Your task to perform on an android device: What's the weather today? Image 0: 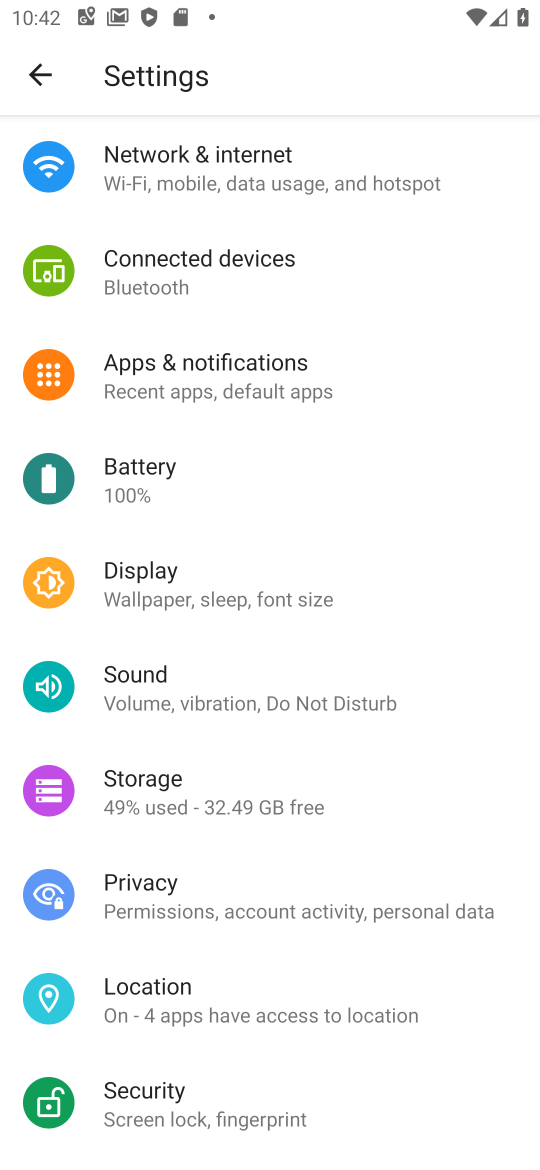
Step 0: press home button
Your task to perform on an android device: What's the weather today? Image 1: 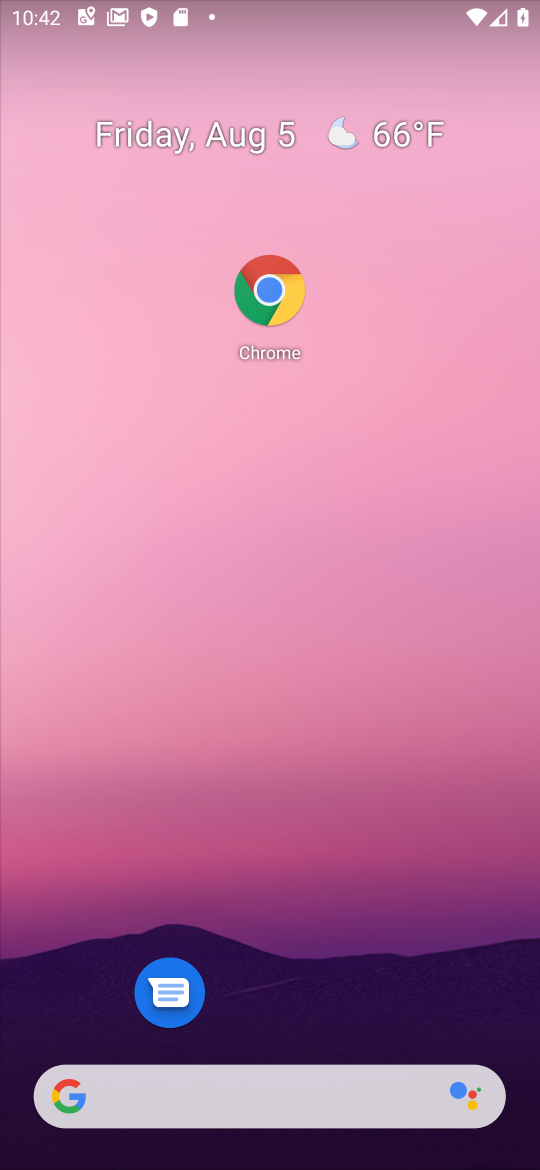
Step 1: drag from (351, 994) to (290, 3)
Your task to perform on an android device: What's the weather today? Image 2: 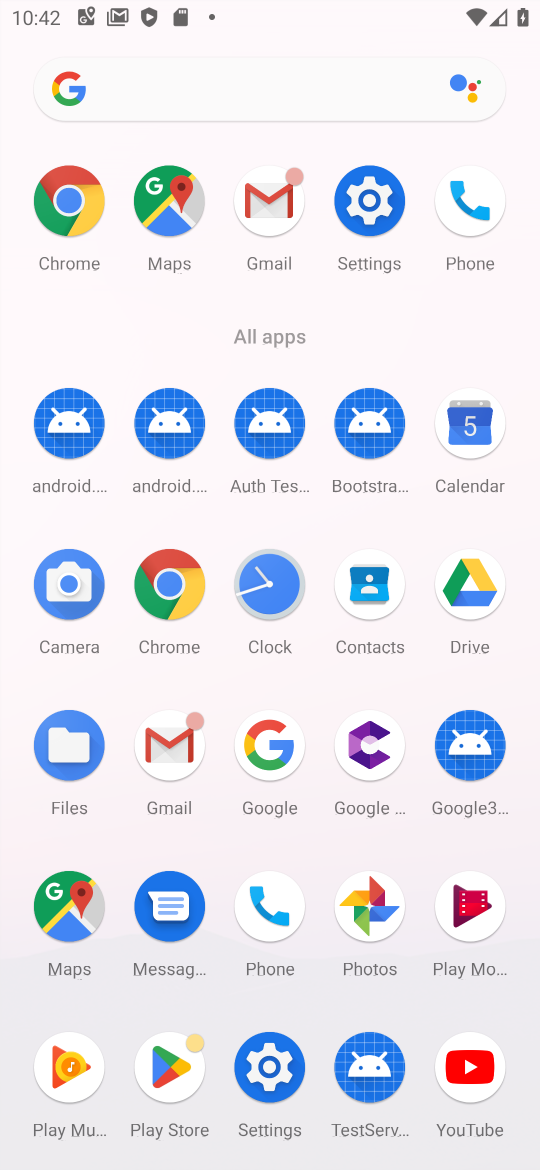
Step 2: click (265, 771)
Your task to perform on an android device: What's the weather today? Image 3: 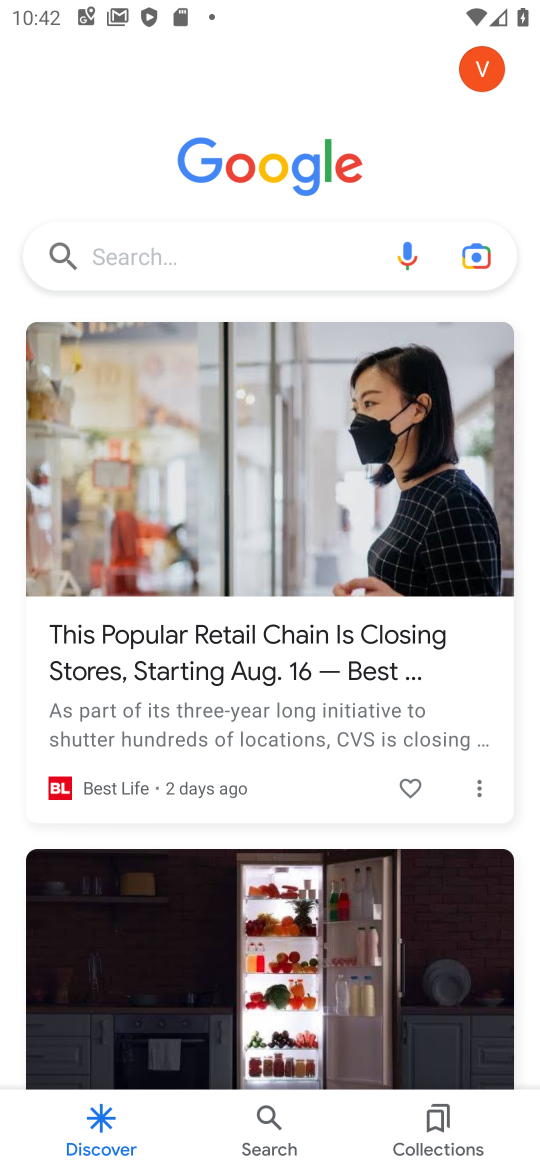
Step 3: click (219, 259)
Your task to perform on an android device: What's the weather today? Image 4: 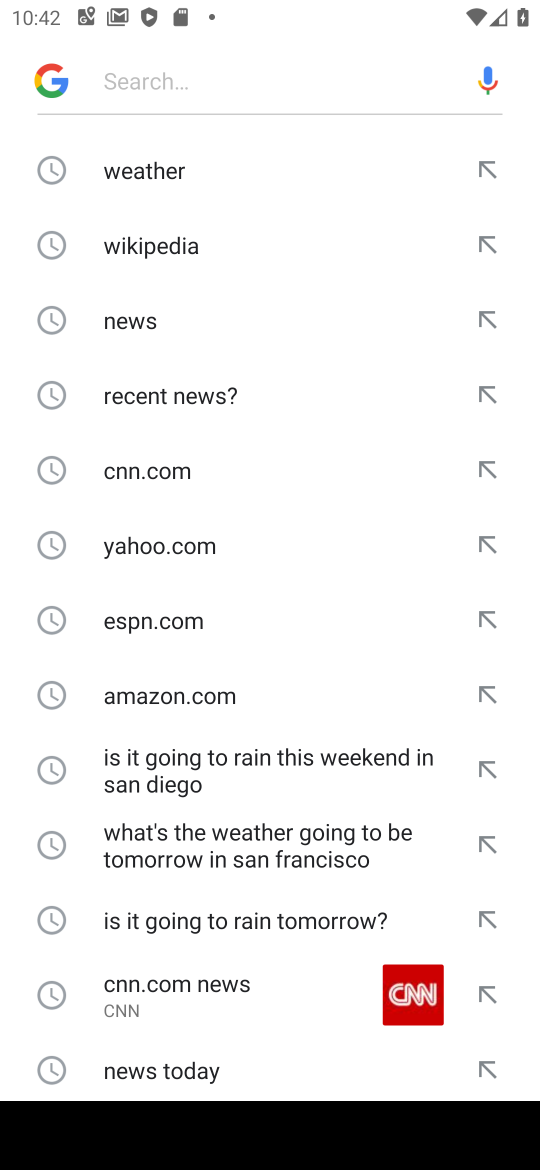
Step 4: click (129, 182)
Your task to perform on an android device: What's the weather today? Image 5: 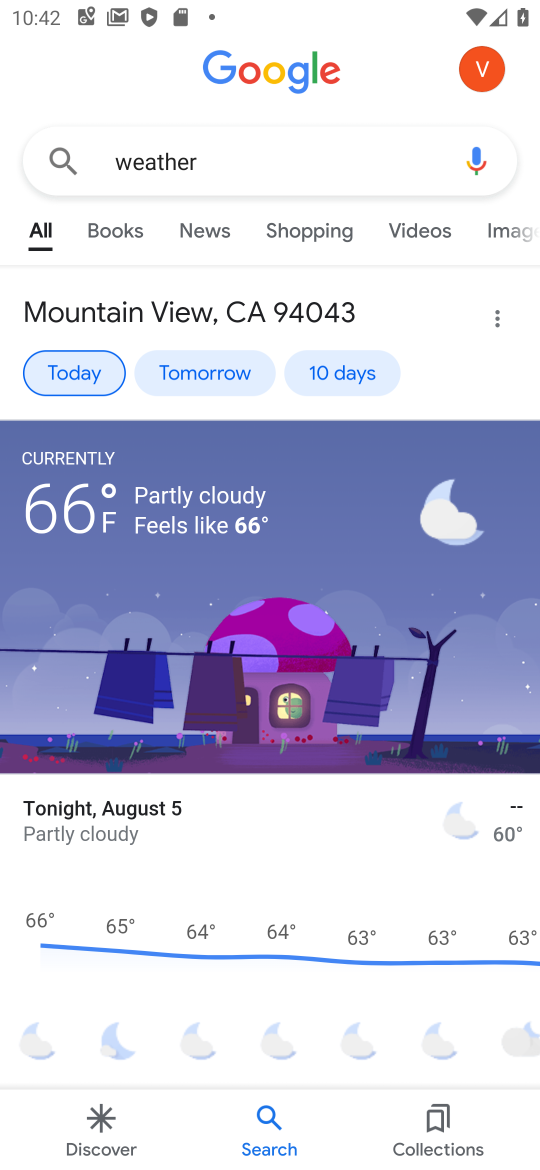
Step 5: task complete